Your task to perform on an android device: Go to internet settings Image 0: 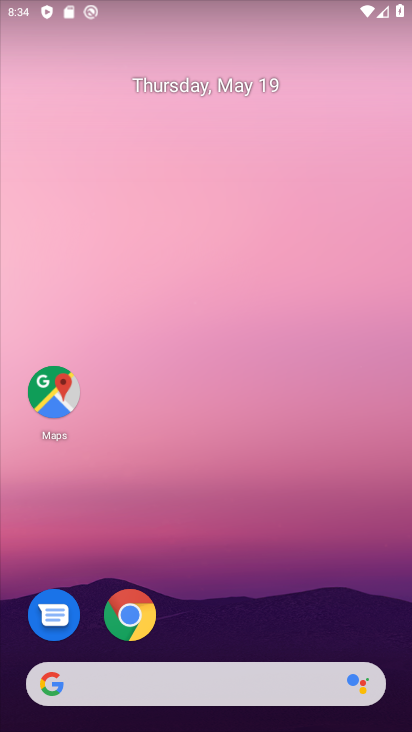
Step 0: drag from (318, 608) to (324, 37)
Your task to perform on an android device: Go to internet settings Image 1: 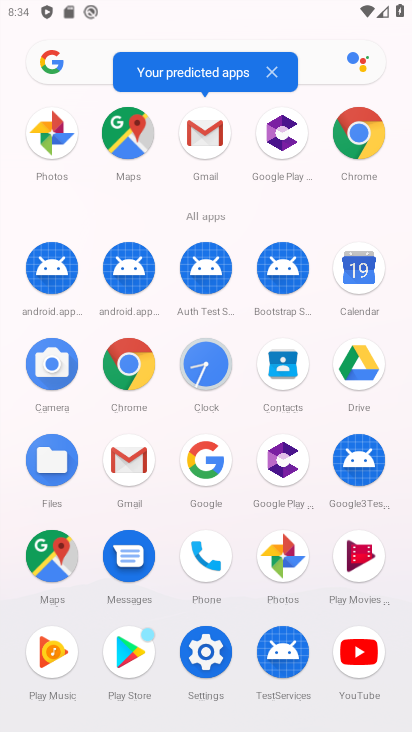
Step 1: click (210, 639)
Your task to perform on an android device: Go to internet settings Image 2: 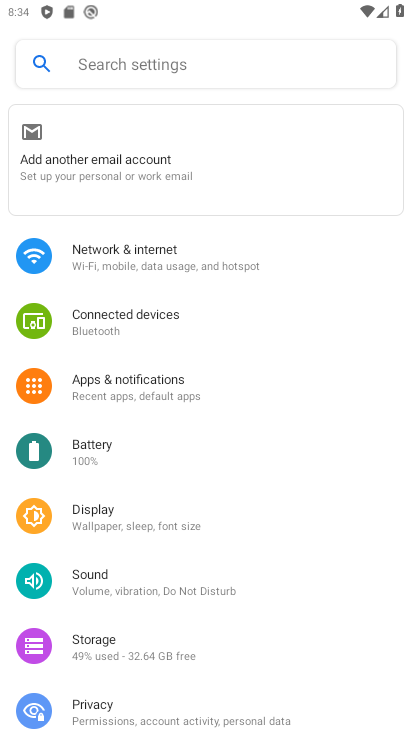
Step 2: click (153, 268)
Your task to perform on an android device: Go to internet settings Image 3: 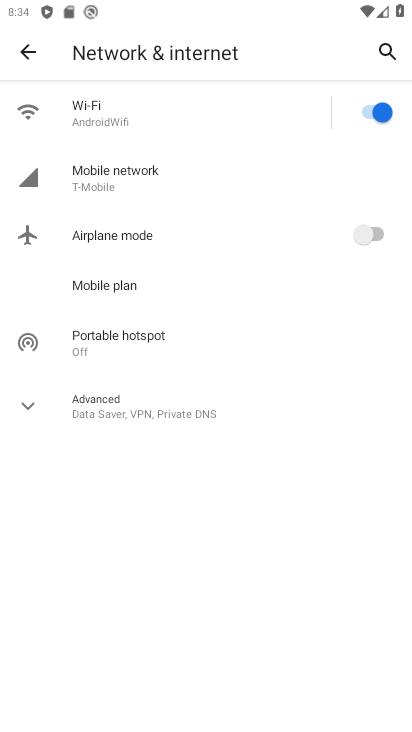
Step 3: task complete